Your task to perform on an android device: open sync settings in chrome Image 0: 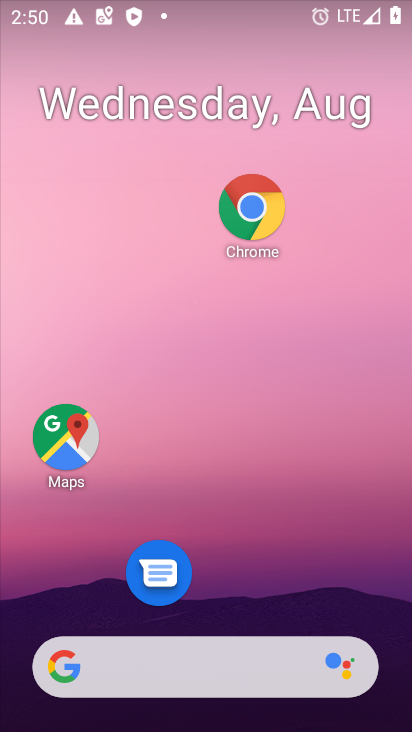
Step 0: drag from (277, 615) to (258, 141)
Your task to perform on an android device: open sync settings in chrome Image 1: 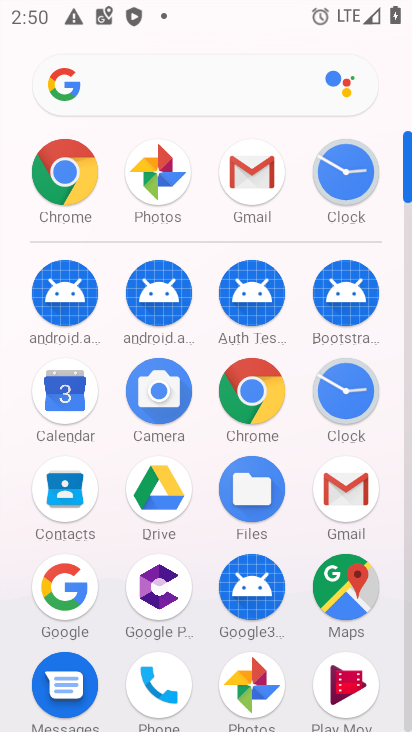
Step 1: click (259, 408)
Your task to perform on an android device: open sync settings in chrome Image 2: 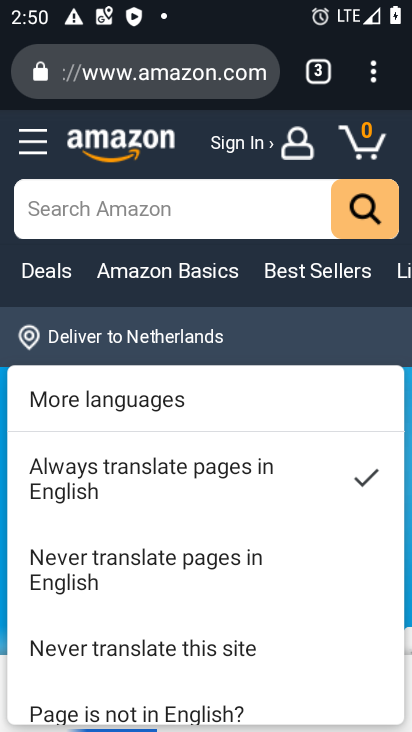
Step 2: click (377, 83)
Your task to perform on an android device: open sync settings in chrome Image 3: 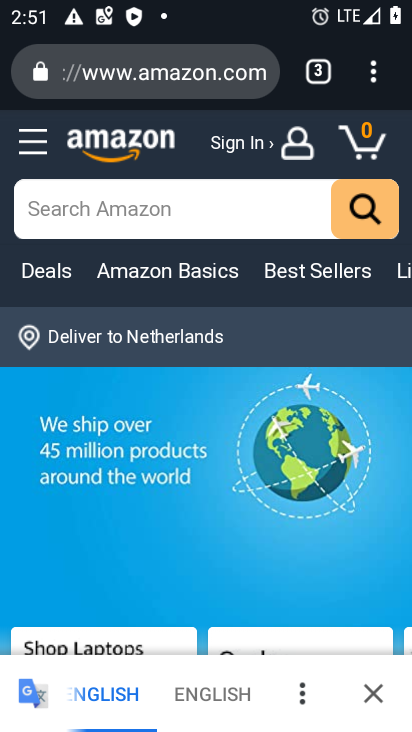
Step 3: click (370, 85)
Your task to perform on an android device: open sync settings in chrome Image 4: 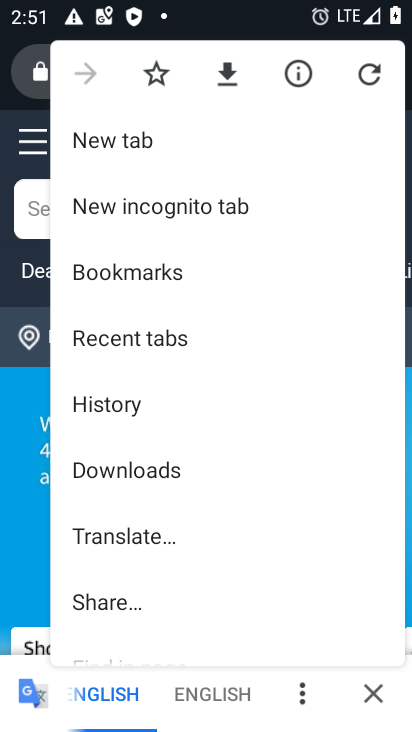
Step 4: drag from (239, 581) to (184, 399)
Your task to perform on an android device: open sync settings in chrome Image 5: 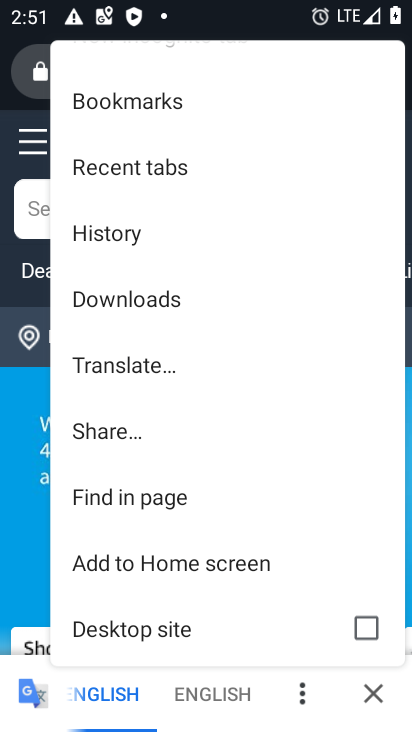
Step 5: drag from (195, 545) to (184, 245)
Your task to perform on an android device: open sync settings in chrome Image 6: 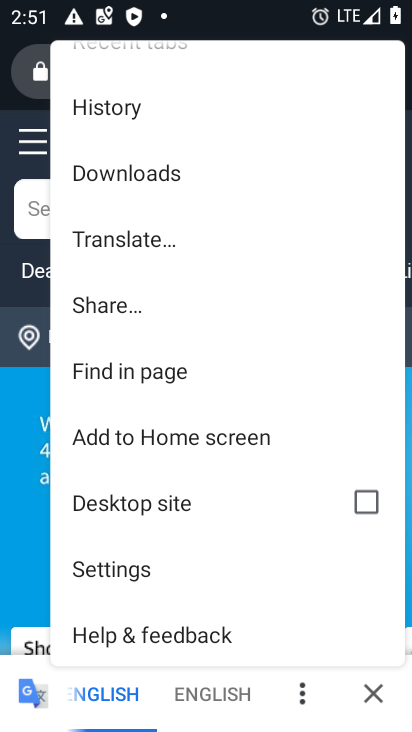
Step 6: click (132, 582)
Your task to perform on an android device: open sync settings in chrome Image 7: 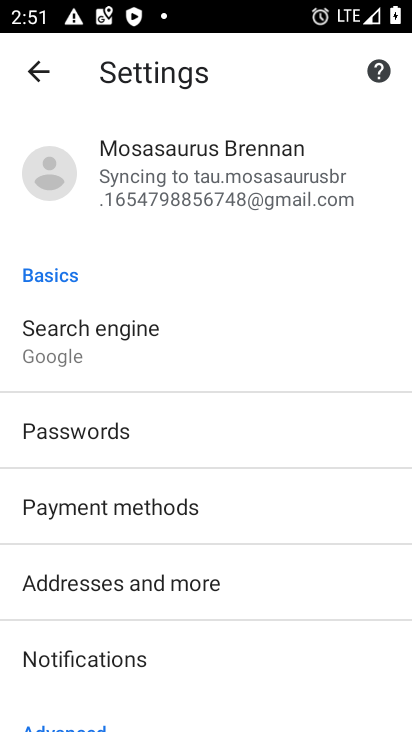
Step 7: drag from (211, 469) to (219, 568)
Your task to perform on an android device: open sync settings in chrome Image 8: 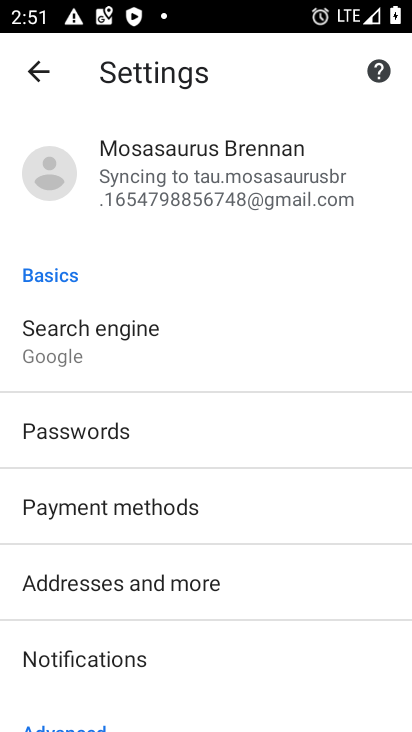
Step 8: click (251, 218)
Your task to perform on an android device: open sync settings in chrome Image 9: 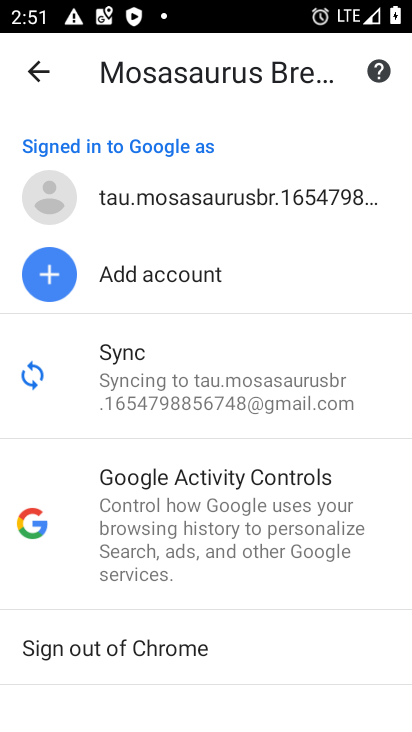
Step 9: click (211, 389)
Your task to perform on an android device: open sync settings in chrome Image 10: 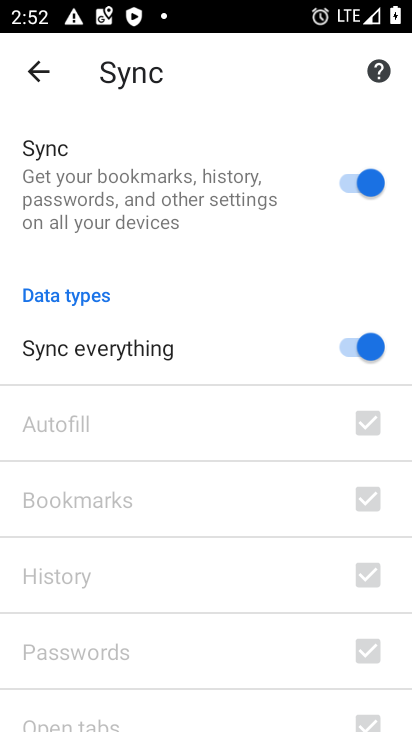
Step 10: task complete